Your task to perform on an android device: Open the phone app and click the voicemail tab. Image 0: 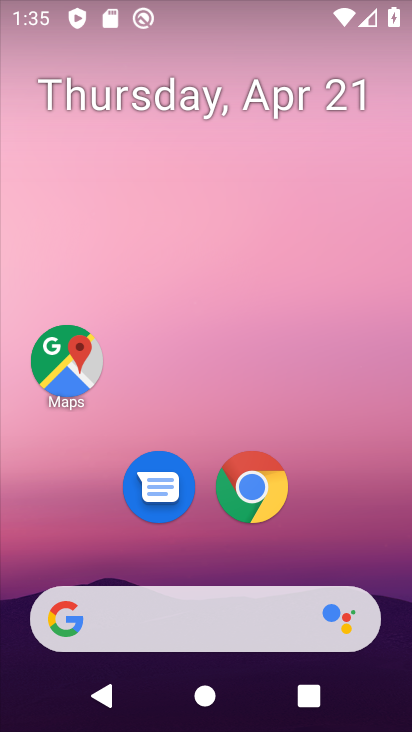
Step 0: drag from (233, 559) to (273, 212)
Your task to perform on an android device: Open the phone app and click the voicemail tab. Image 1: 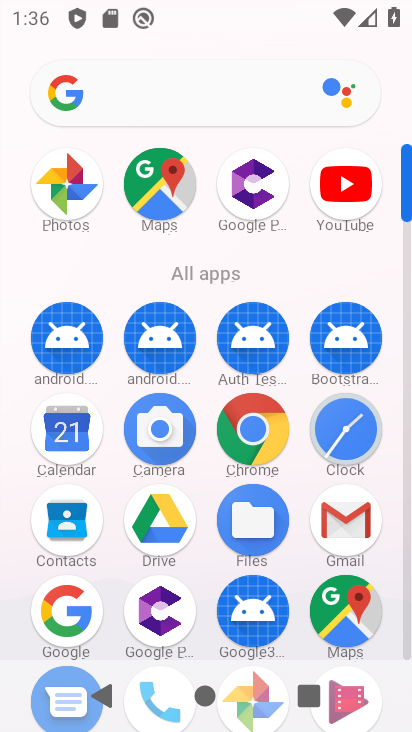
Step 1: drag from (213, 650) to (375, 47)
Your task to perform on an android device: Open the phone app and click the voicemail tab. Image 2: 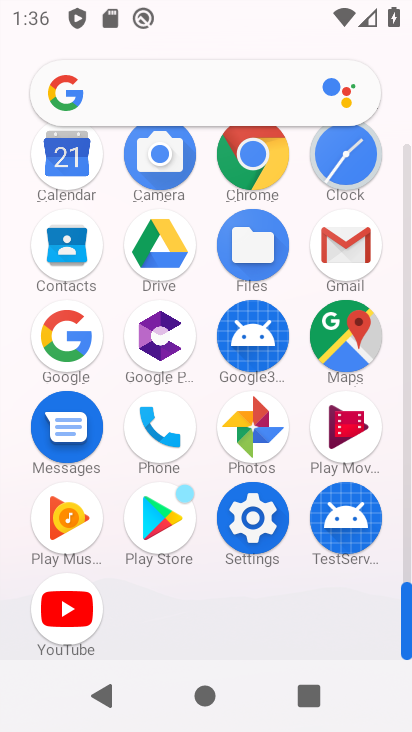
Step 2: click (158, 438)
Your task to perform on an android device: Open the phone app and click the voicemail tab. Image 3: 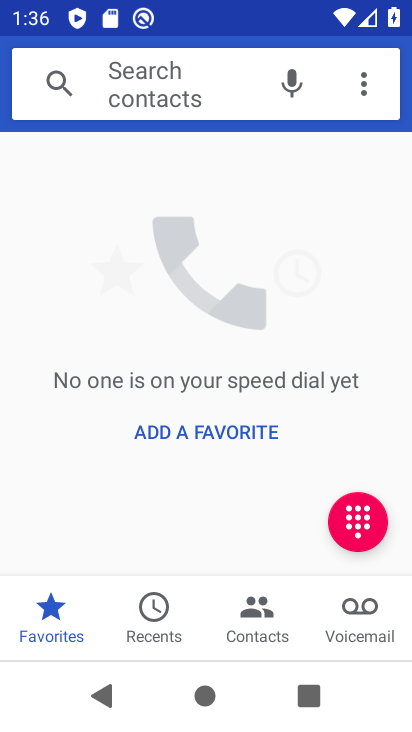
Step 3: click (354, 613)
Your task to perform on an android device: Open the phone app and click the voicemail tab. Image 4: 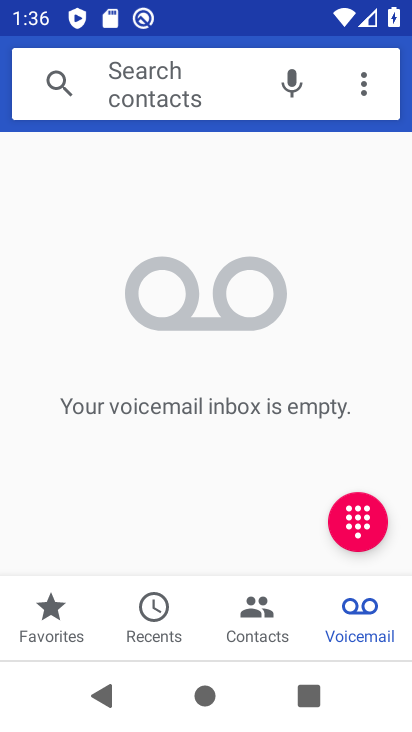
Step 4: task complete